Your task to perform on an android device: open chrome and create a bookmark for the current page Image 0: 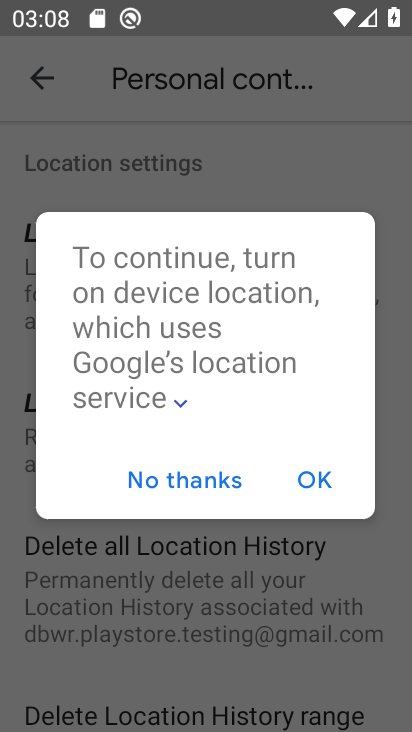
Step 0: press back button
Your task to perform on an android device: open chrome and create a bookmark for the current page Image 1: 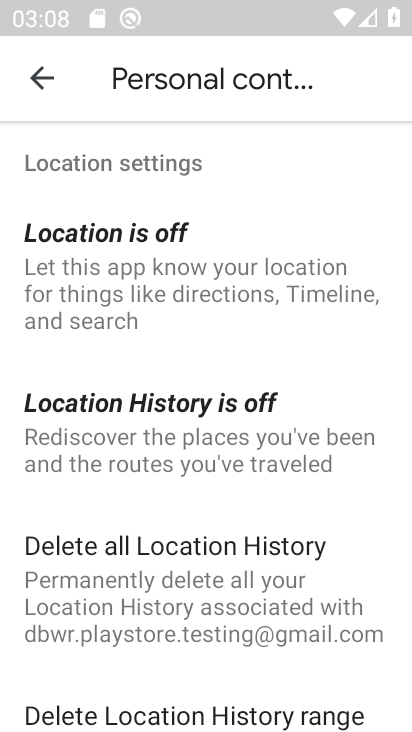
Step 1: press back button
Your task to perform on an android device: open chrome and create a bookmark for the current page Image 2: 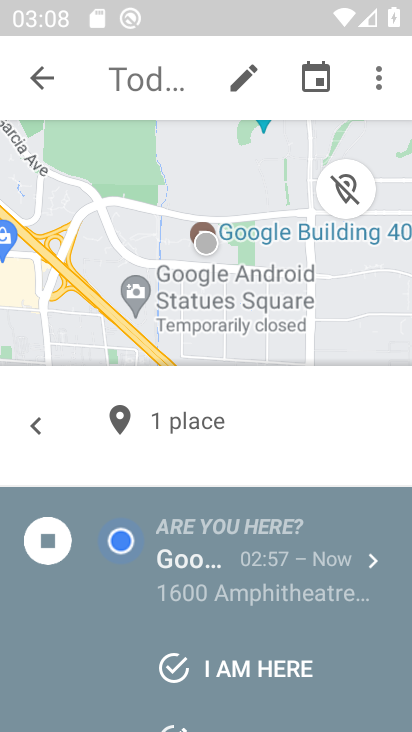
Step 2: press home button
Your task to perform on an android device: open chrome and create a bookmark for the current page Image 3: 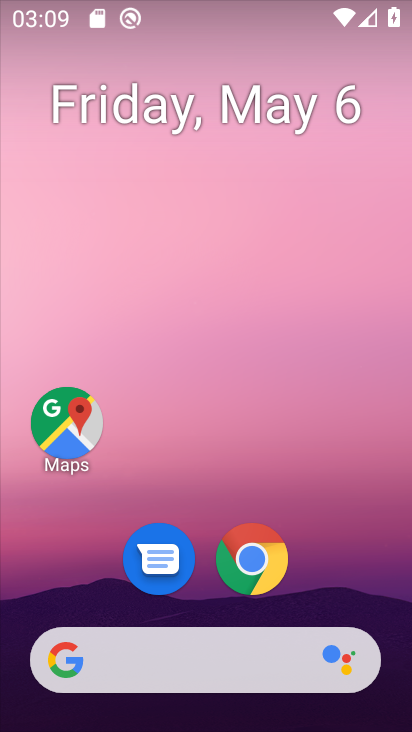
Step 3: drag from (349, 587) to (398, 113)
Your task to perform on an android device: open chrome and create a bookmark for the current page Image 4: 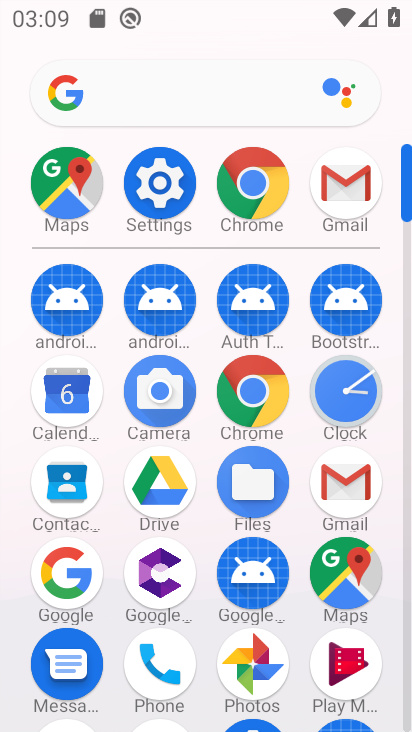
Step 4: click (271, 402)
Your task to perform on an android device: open chrome and create a bookmark for the current page Image 5: 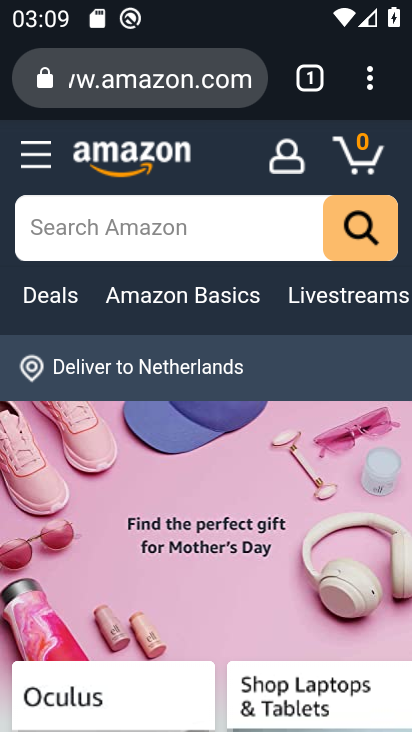
Step 5: click (373, 71)
Your task to perform on an android device: open chrome and create a bookmark for the current page Image 6: 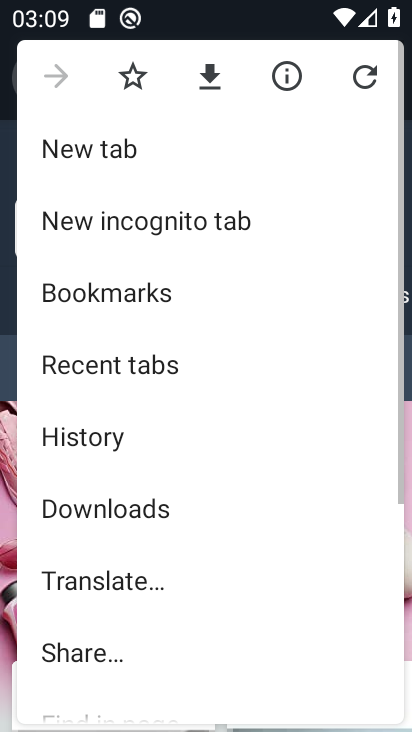
Step 6: click (200, 297)
Your task to perform on an android device: open chrome and create a bookmark for the current page Image 7: 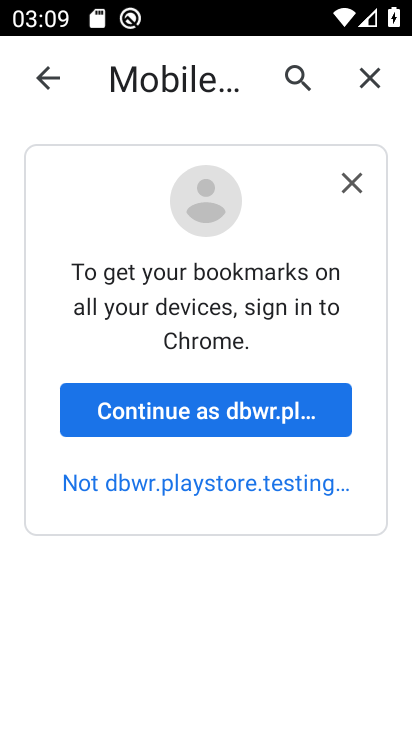
Step 7: task complete